Your task to perform on an android device: find snoozed emails in the gmail app Image 0: 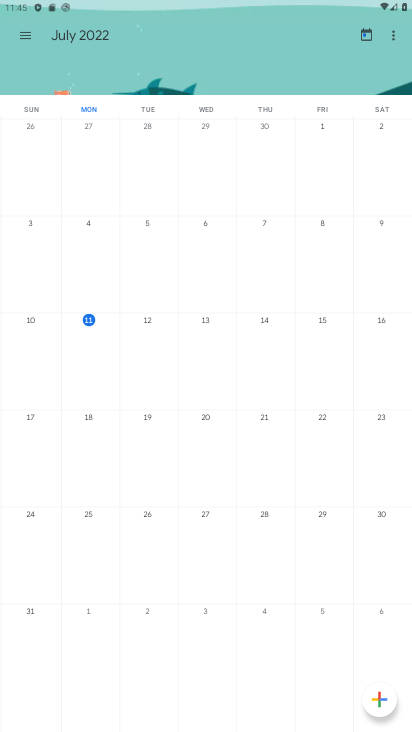
Step 0: press home button
Your task to perform on an android device: find snoozed emails in the gmail app Image 1: 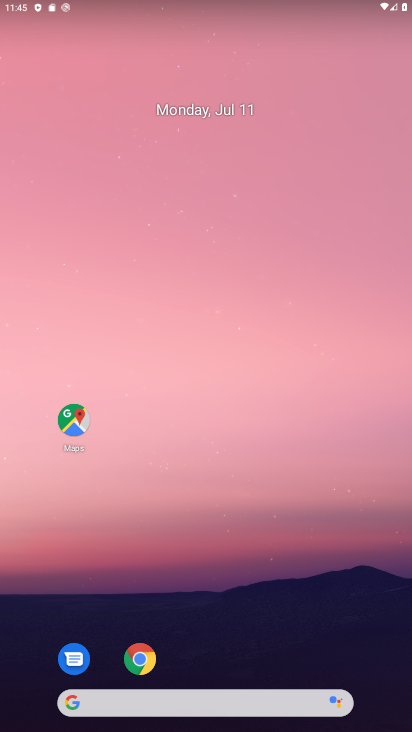
Step 1: drag from (157, 548) to (178, 157)
Your task to perform on an android device: find snoozed emails in the gmail app Image 2: 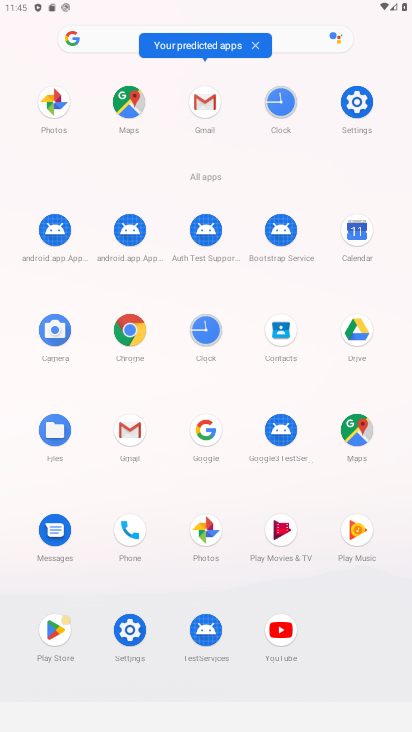
Step 2: click (138, 425)
Your task to perform on an android device: find snoozed emails in the gmail app Image 3: 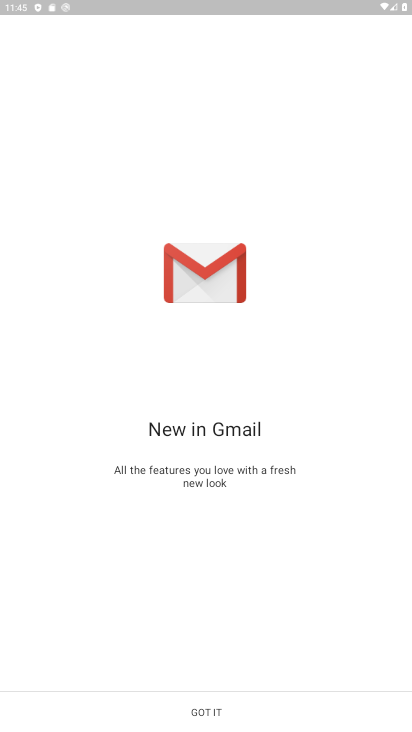
Step 3: click (243, 721)
Your task to perform on an android device: find snoozed emails in the gmail app Image 4: 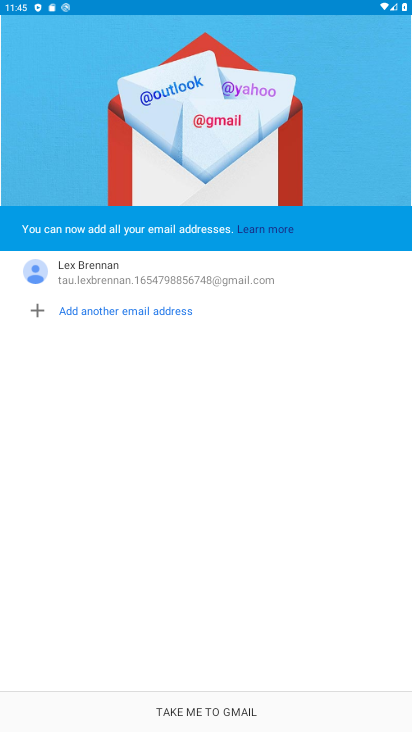
Step 4: click (202, 712)
Your task to perform on an android device: find snoozed emails in the gmail app Image 5: 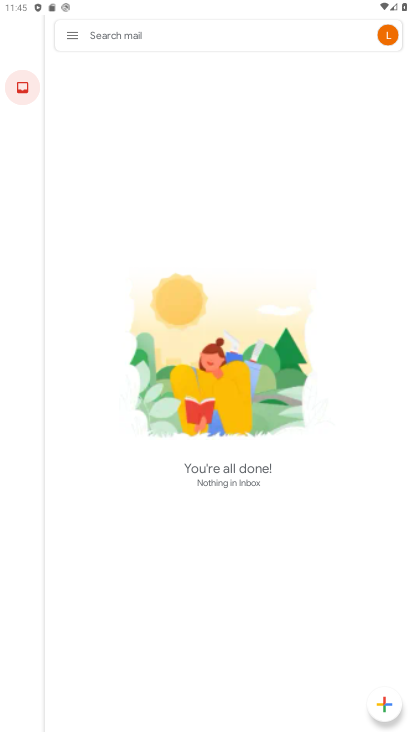
Step 5: click (71, 29)
Your task to perform on an android device: find snoozed emails in the gmail app Image 6: 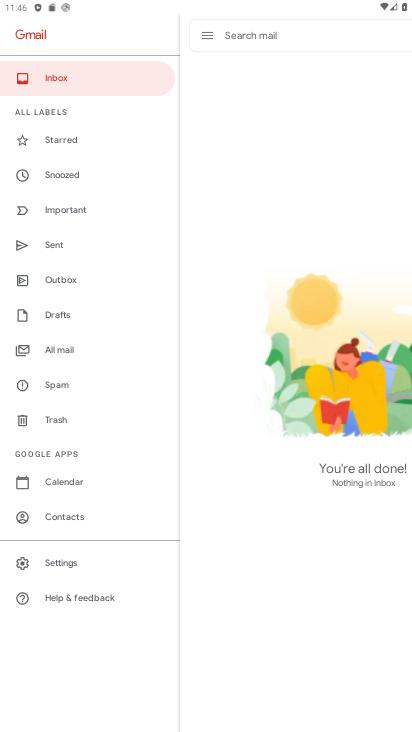
Step 6: click (61, 174)
Your task to perform on an android device: find snoozed emails in the gmail app Image 7: 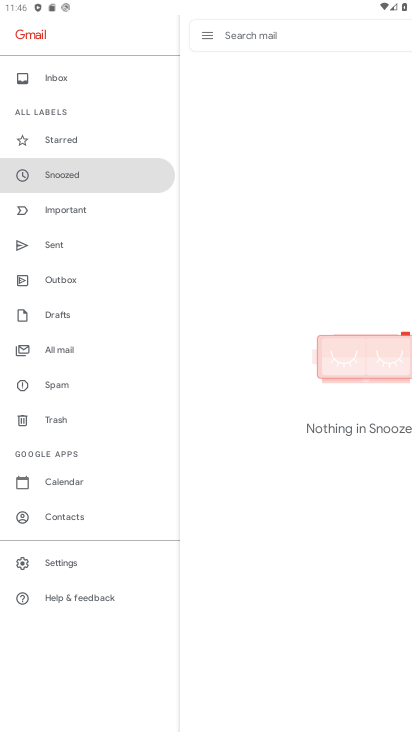
Step 7: task complete